Your task to perform on an android device: Search for "usb-a to usb-b" on amazon, select the first entry, add it to the cart, then select checkout. Image 0: 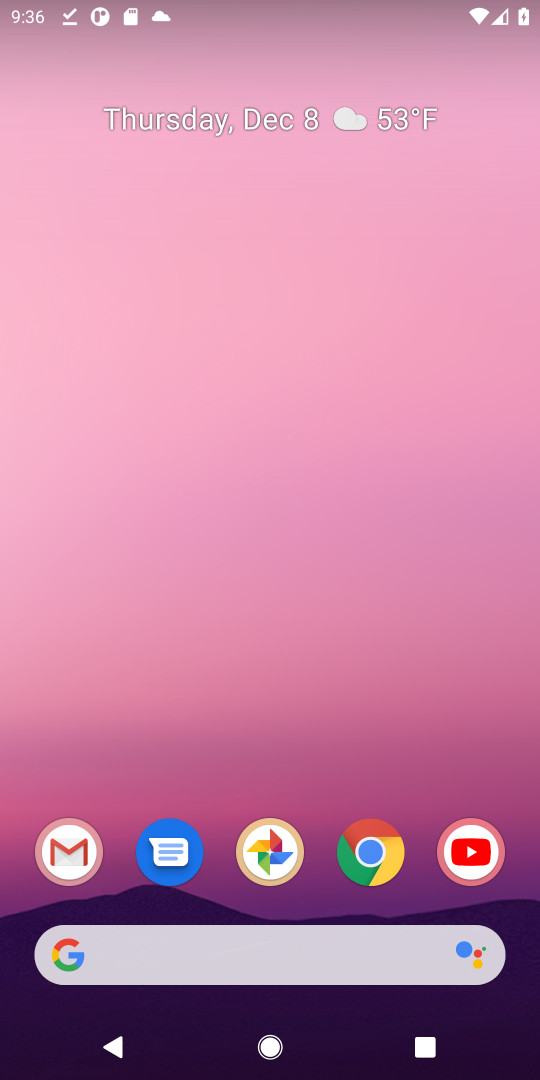
Step 0: click (212, 970)
Your task to perform on an android device: Search for "usb-a to usb-b" on amazon, select the first entry, add it to the cart, then select checkout. Image 1: 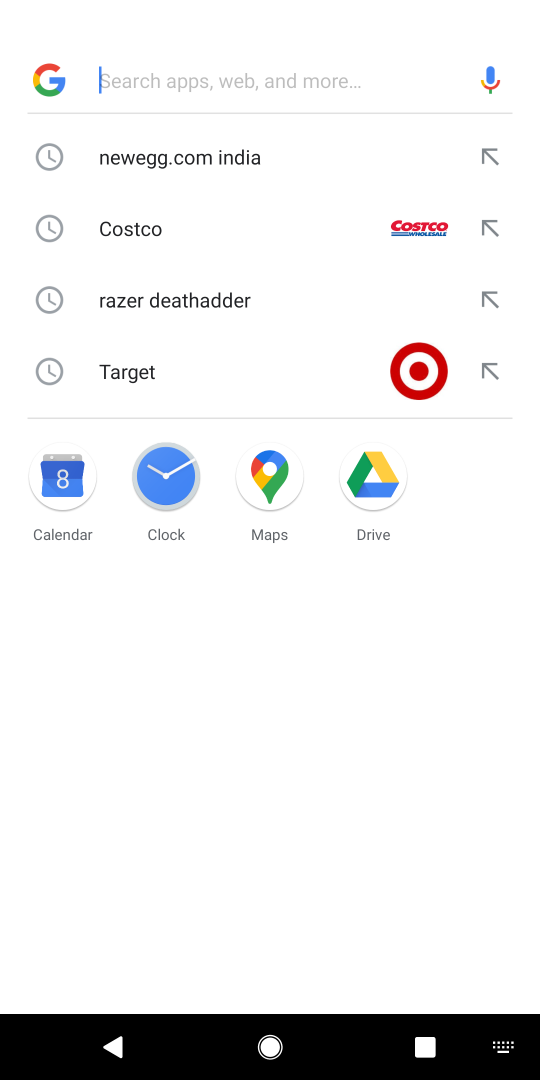
Step 1: type "amazon"
Your task to perform on an android device: Search for "usb-a to usb-b" on amazon, select the first entry, add it to the cart, then select checkout. Image 2: 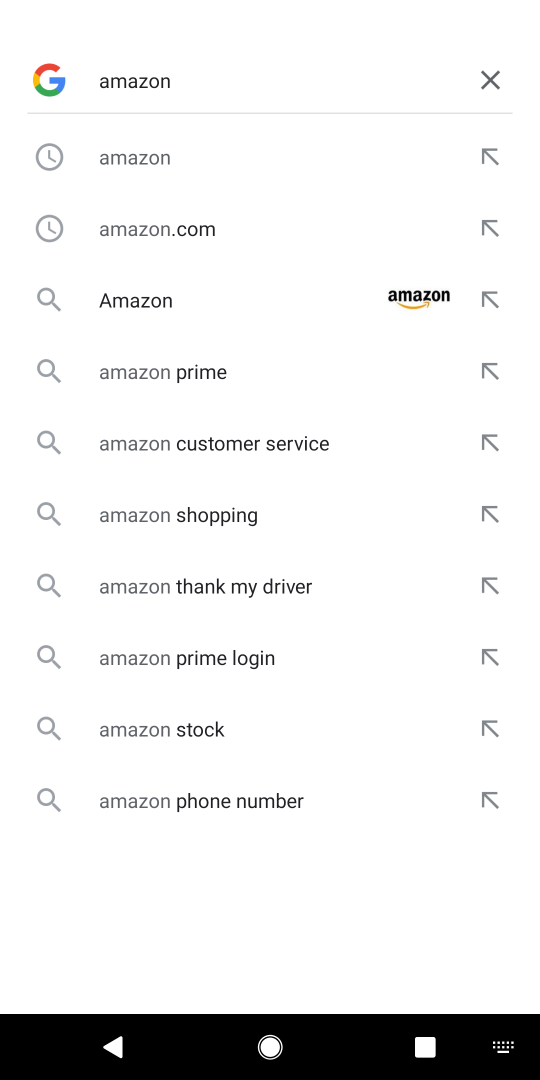
Step 2: click (181, 171)
Your task to perform on an android device: Search for "usb-a to usb-b" on amazon, select the first entry, add it to the cart, then select checkout. Image 3: 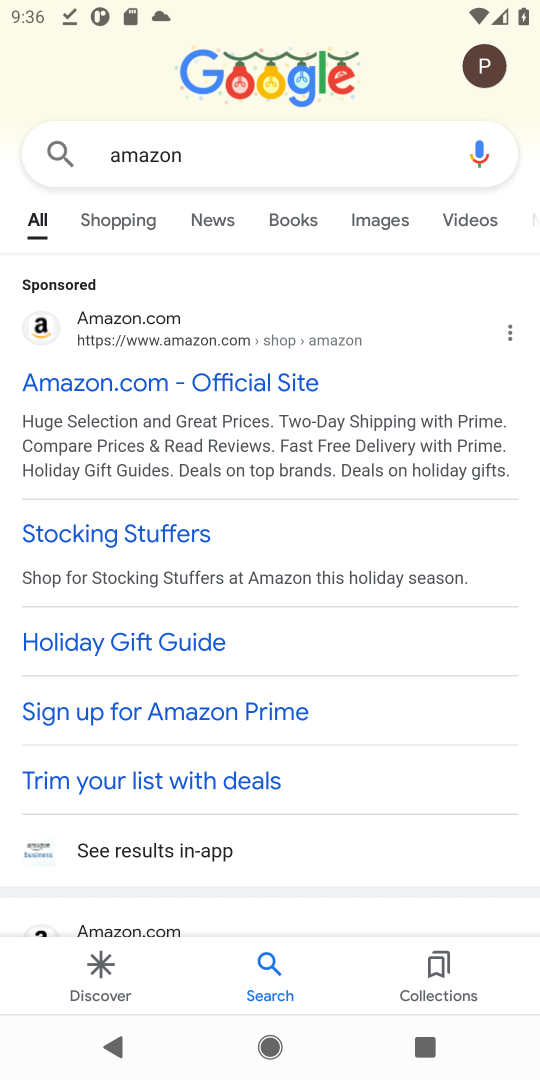
Step 3: click (224, 347)
Your task to perform on an android device: Search for "usb-a to usb-b" on amazon, select the first entry, add it to the cart, then select checkout. Image 4: 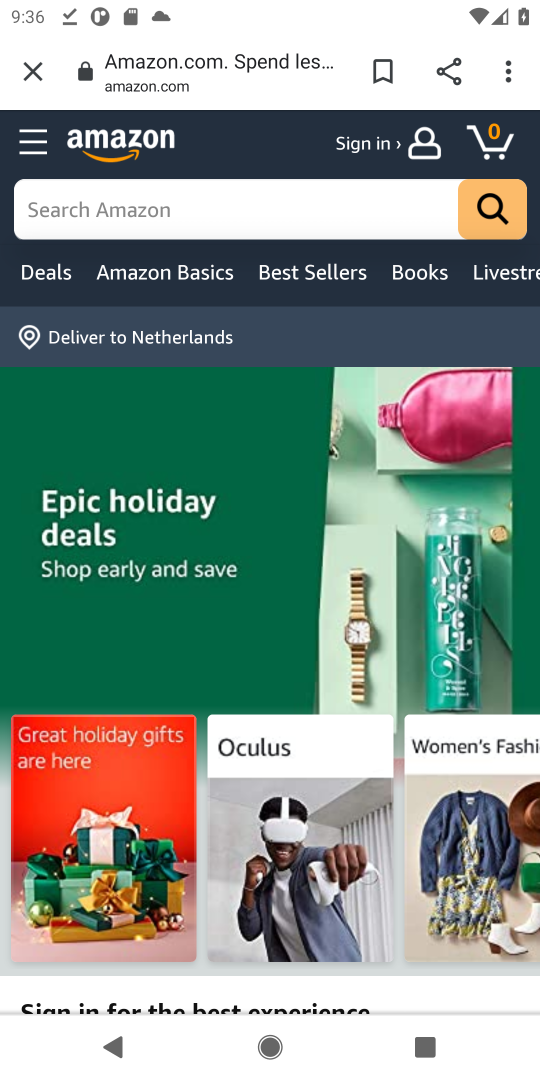
Step 4: click (198, 206)
Your task to perform on an android device: Search for "usb-a to usb-b" on amazon, select the first entry, add it to the cart, then select checkout. Image 5: 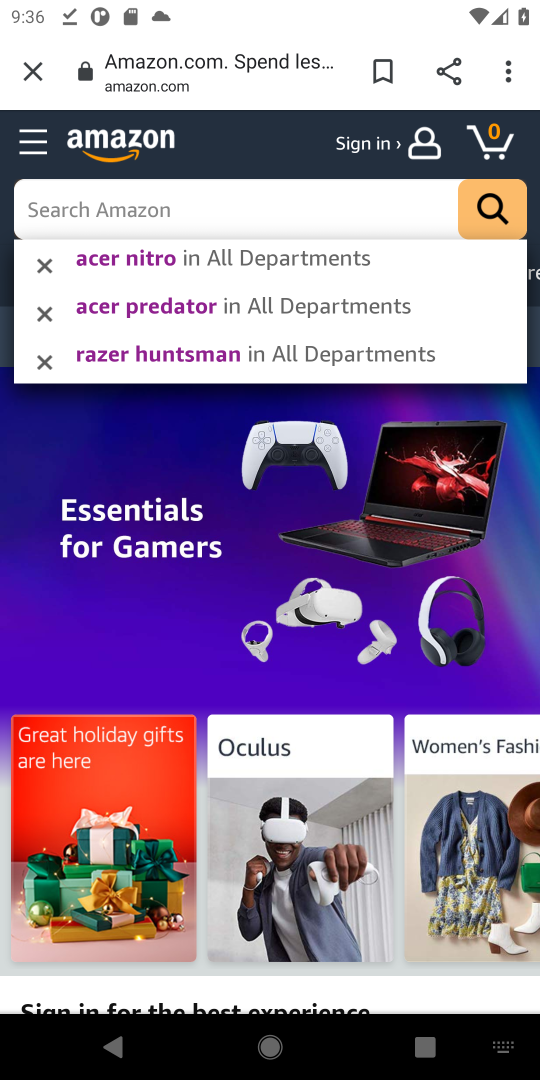
Step 5: type "usb-a to usb-b"
Your task to perform on an android device: Search for "usb-a to usb-b" on amazon, select the first entry, add it to the cart, then select checkout. Image 6: 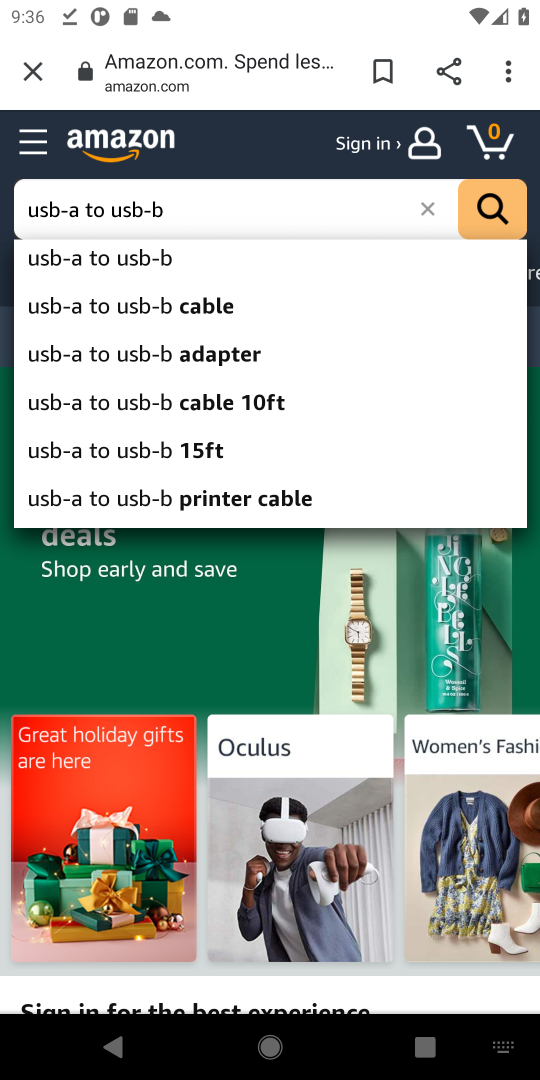
Step 6: click (506, 226)
Your task to perform on an android device: Search for "usb-a to usb-b" on amazon, select the first entry, add it to the cart, then select checkout. Image 7: 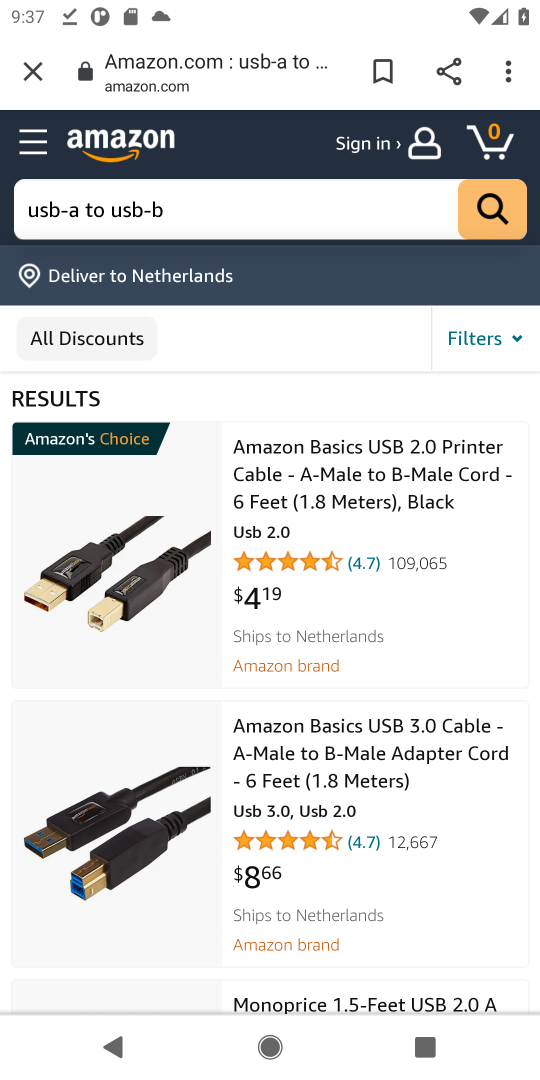
Step 7: click (409, 536)
Your task to perform on an android device: Search for "usb-a to usb-b" on amazon, select the first entry, add it to the cart, then select checkout. Image 8: 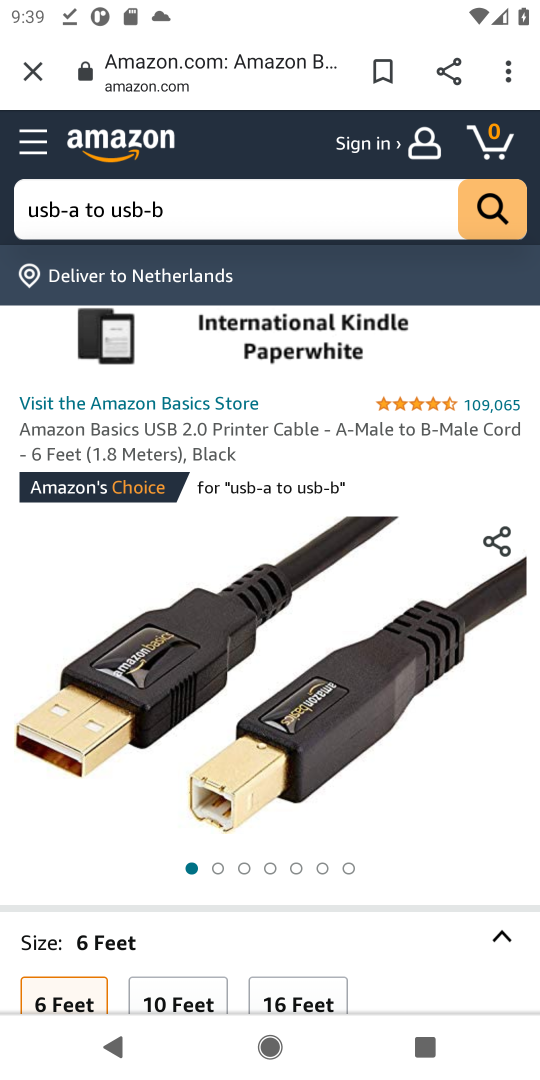
Step 8: task complete